Your task to perform on an android device: Play the last video I watched on Youtube Image 0: 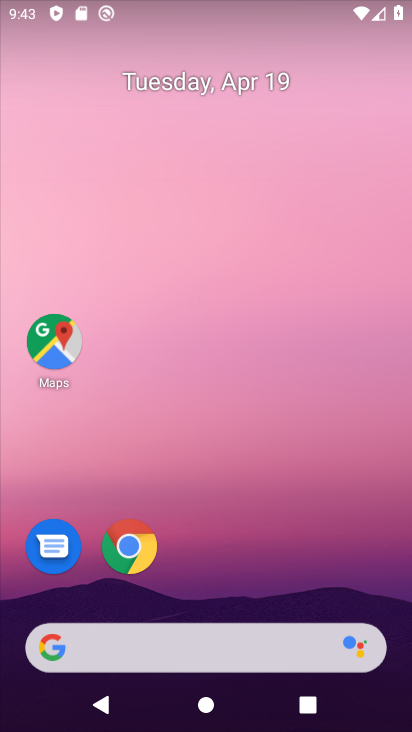
Step 0: drag from (171, 484) to (300, 9)
Your task to perform on an android device: Play the last video I watched on Youtube Image 1: 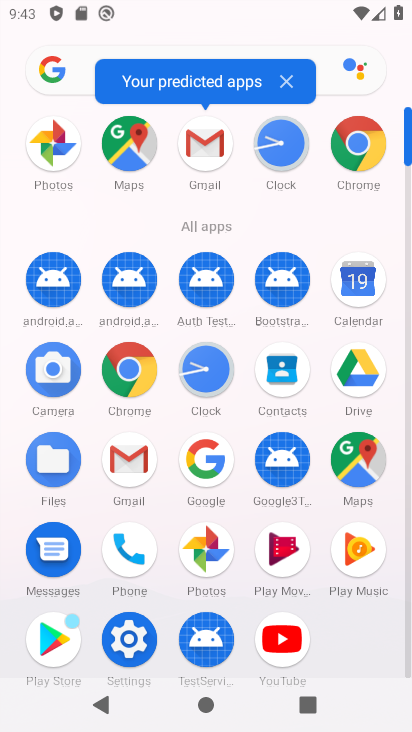
Step 1: click (292, 647)
Your task to perform on an android device: Play the last video I watched on Youtube Image 2: 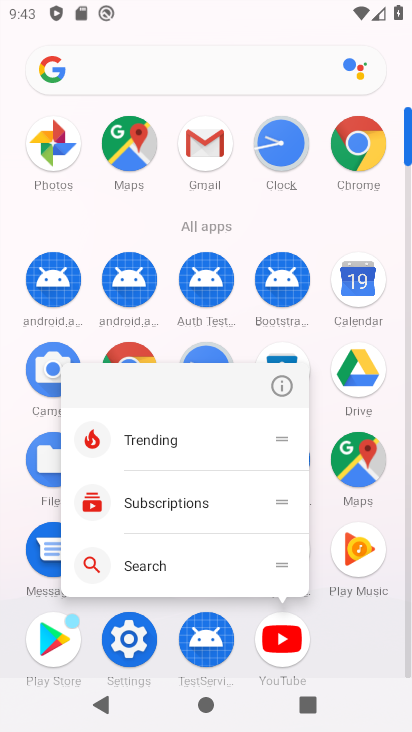
Step 2: click (284, 647)
Your task to perform on an android device: Play the last video I watched on Youtube Image 3: 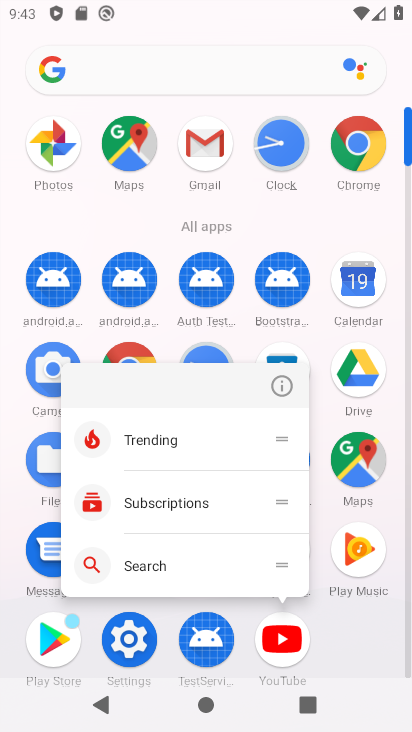
Step 3: click (277, 636)
Your task to perform on an android device: Play the last video I watched on Youtube Image 4: 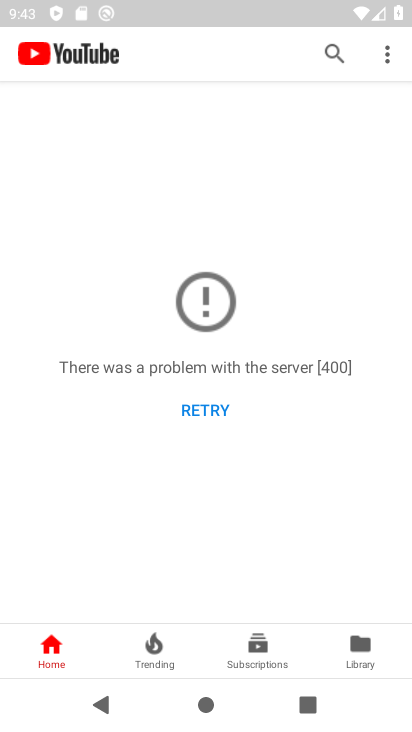
Step 4: task complete